Your task to perform on an android device: Open calendar and show me the second week of next month Image 0: 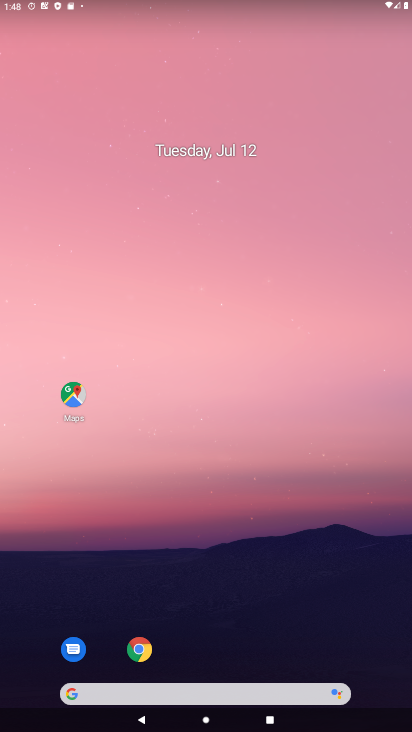
Step 0: drag from (385, 671) to (218, 59)
Your task to perform on an android device: Open calendar and show me the second week of next month Image 1: 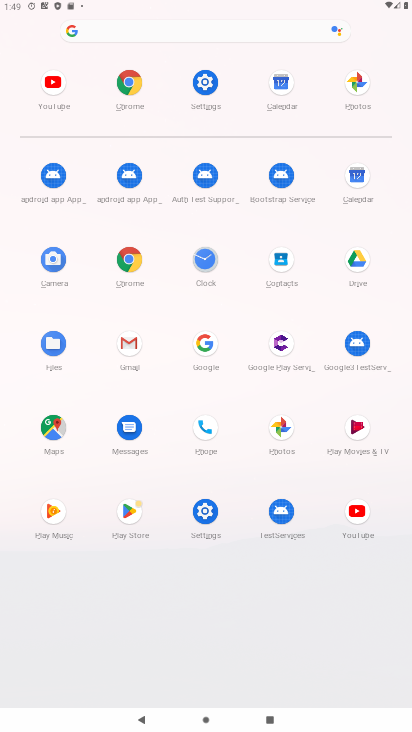
Step 1: click (357, 179)
Your task to perform on an android device: Open calendar and show me the second week of next month Image 2: 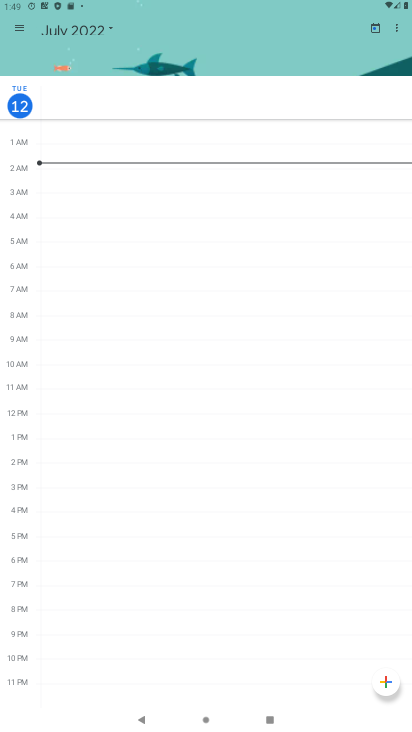
Step 2: click (77, 19)
Your task to perform on an android device: Open calendar and show me the second week of next month Image 3: 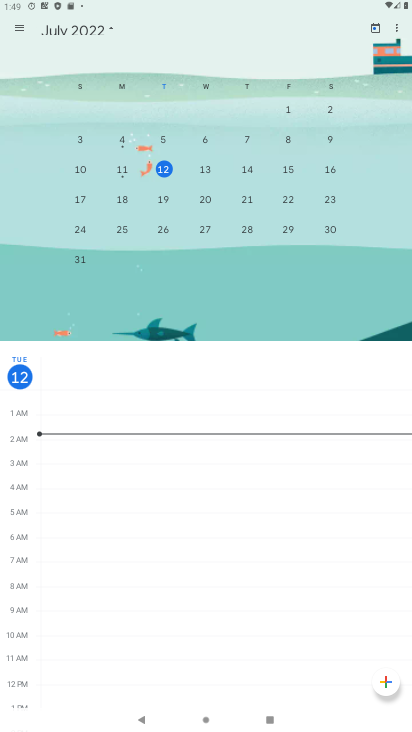
Step 3: drag from (344, 159) to (10, 153)
Your task to perform on an android device: Open calendar and show me the second week of next month Image 4: 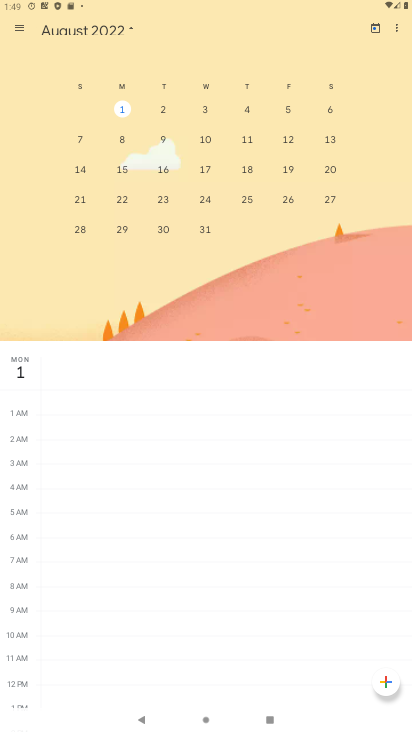
Step 4: click (72, 168)
Your task to perform on an android device: Open calendar and show me the second week of next month Image 5: 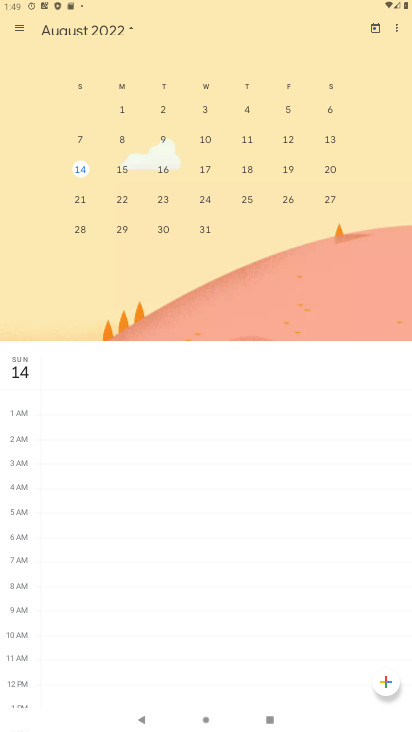
Step 5: task complete